Your task to perform on an android device: check out phone information Image 0: 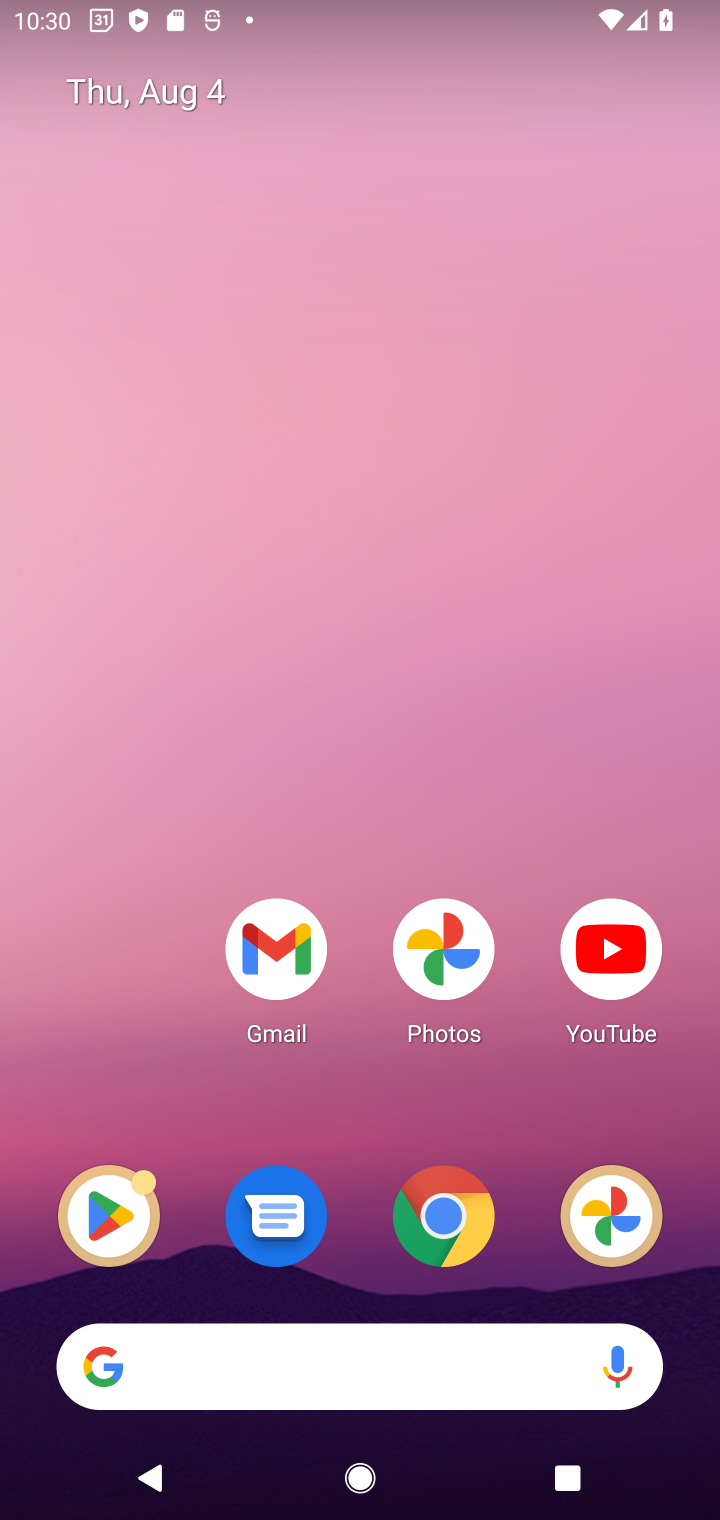
Step 0: drag from (341, 1341) to (429, 227)
Your task to perform on an android device: check out phone information Image 1: 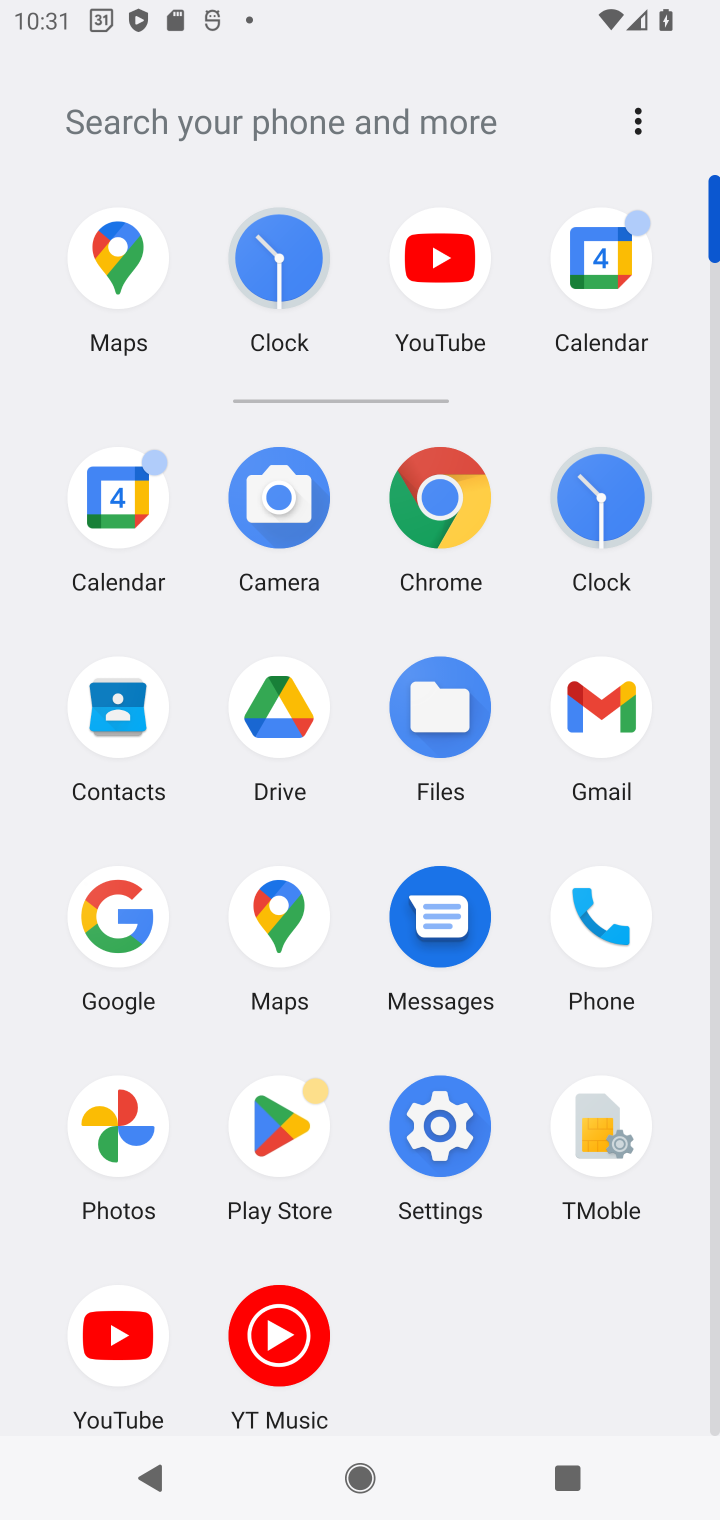
Step 1: click (434, 1128)
Your task to perform on an android device: check out phone information Image 2: 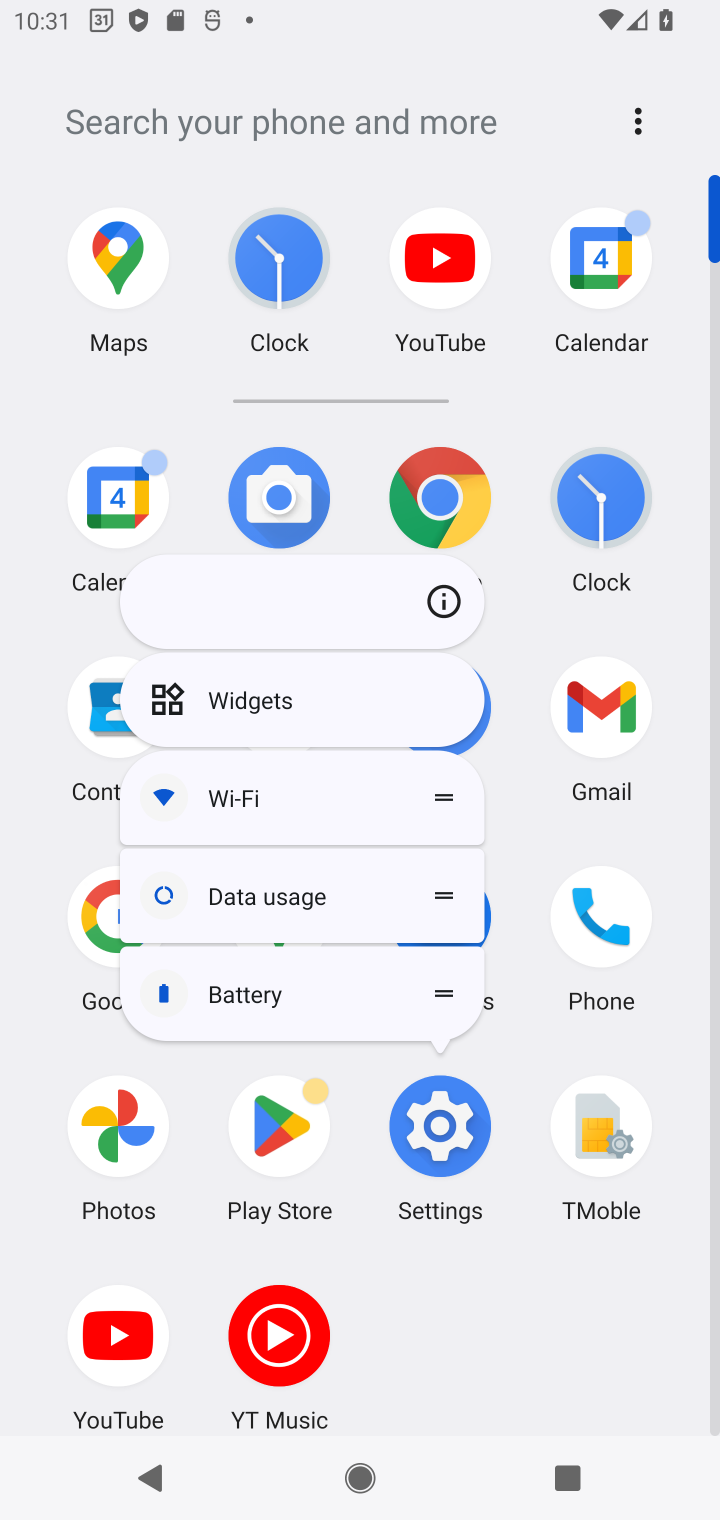
Step 2: click (439, 1126)
Your task to perform on an android device: check out phone information Image 3: 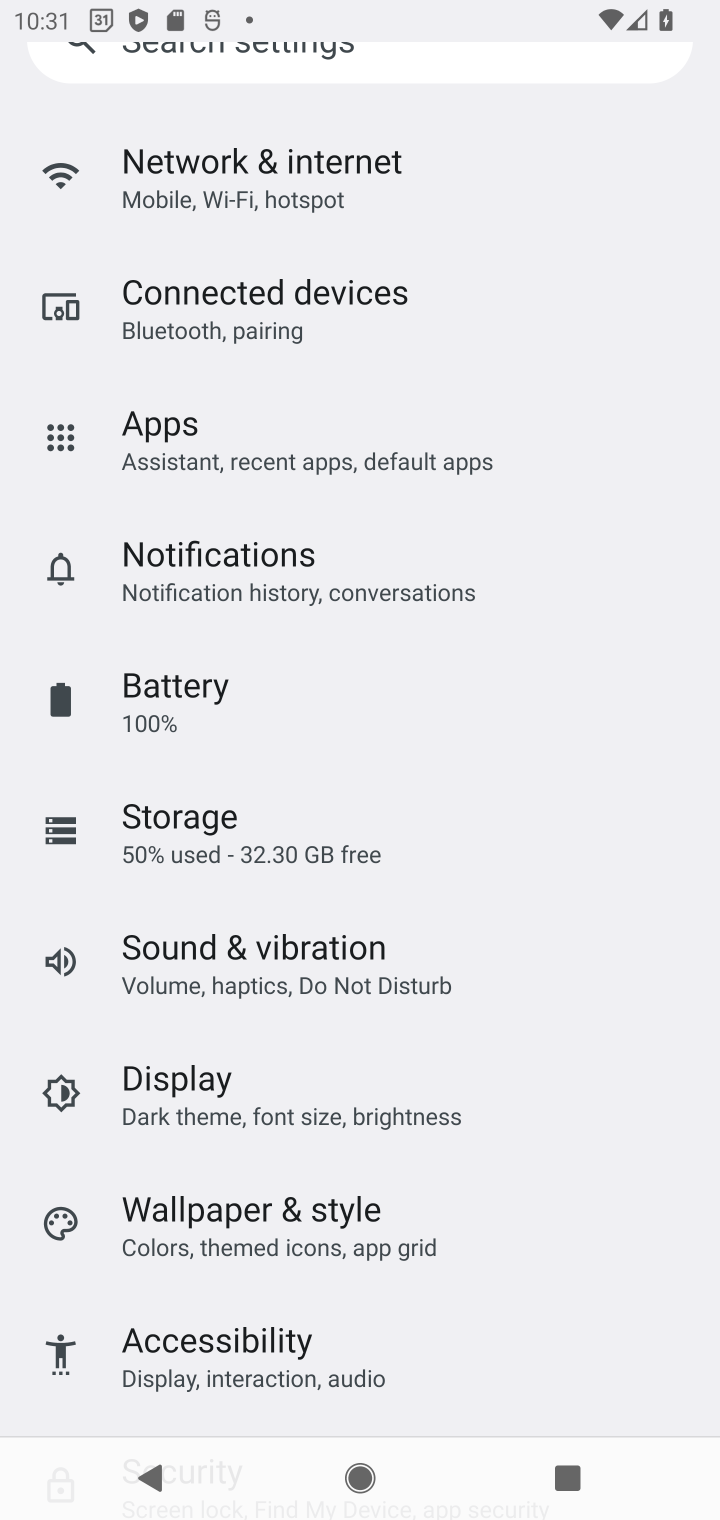
Step 3: drag from (209, 1047) to (322, 831)
Your task to perform on an android device: check out phone information Image 4: 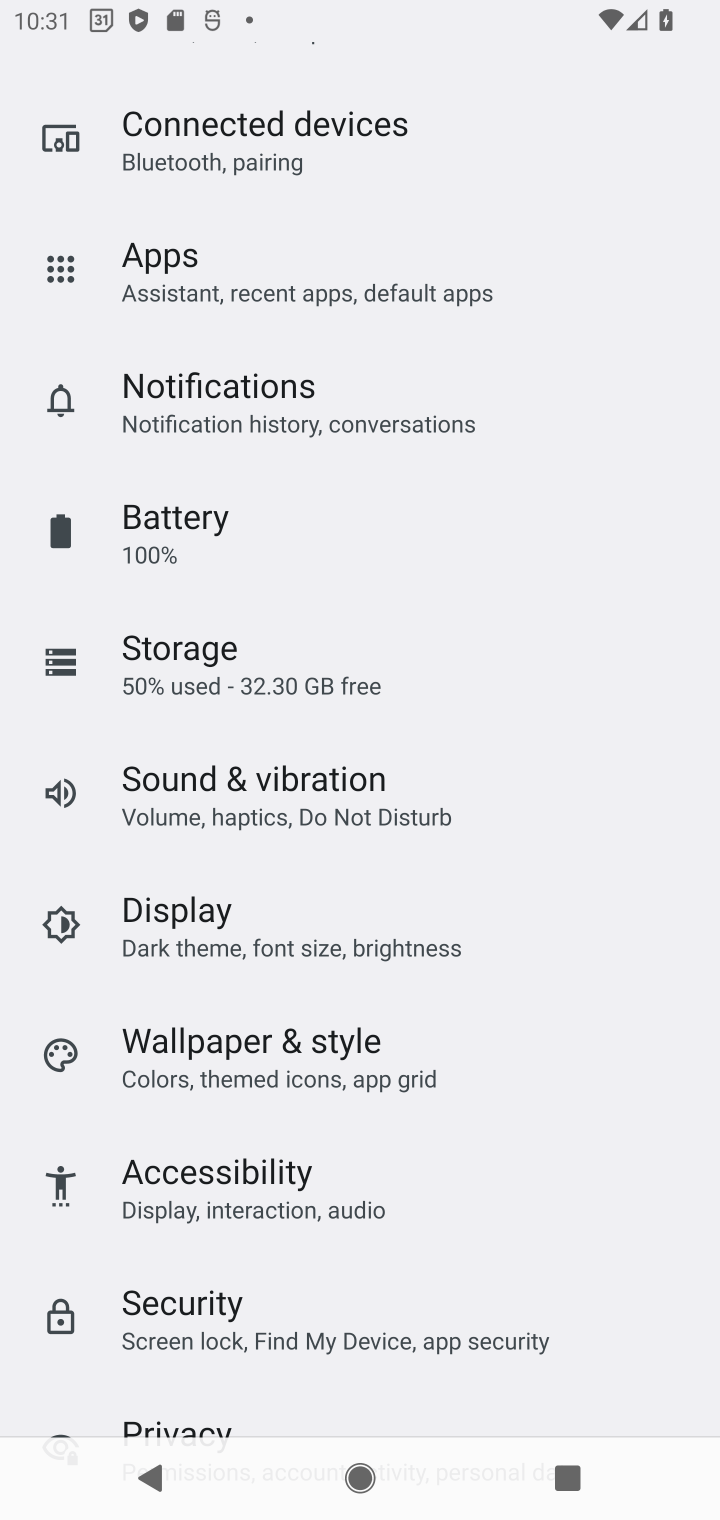
Step 4: drag from (153, 1129) to (259, 789)
Your task to perform on an android device: check out phone information Image 5: 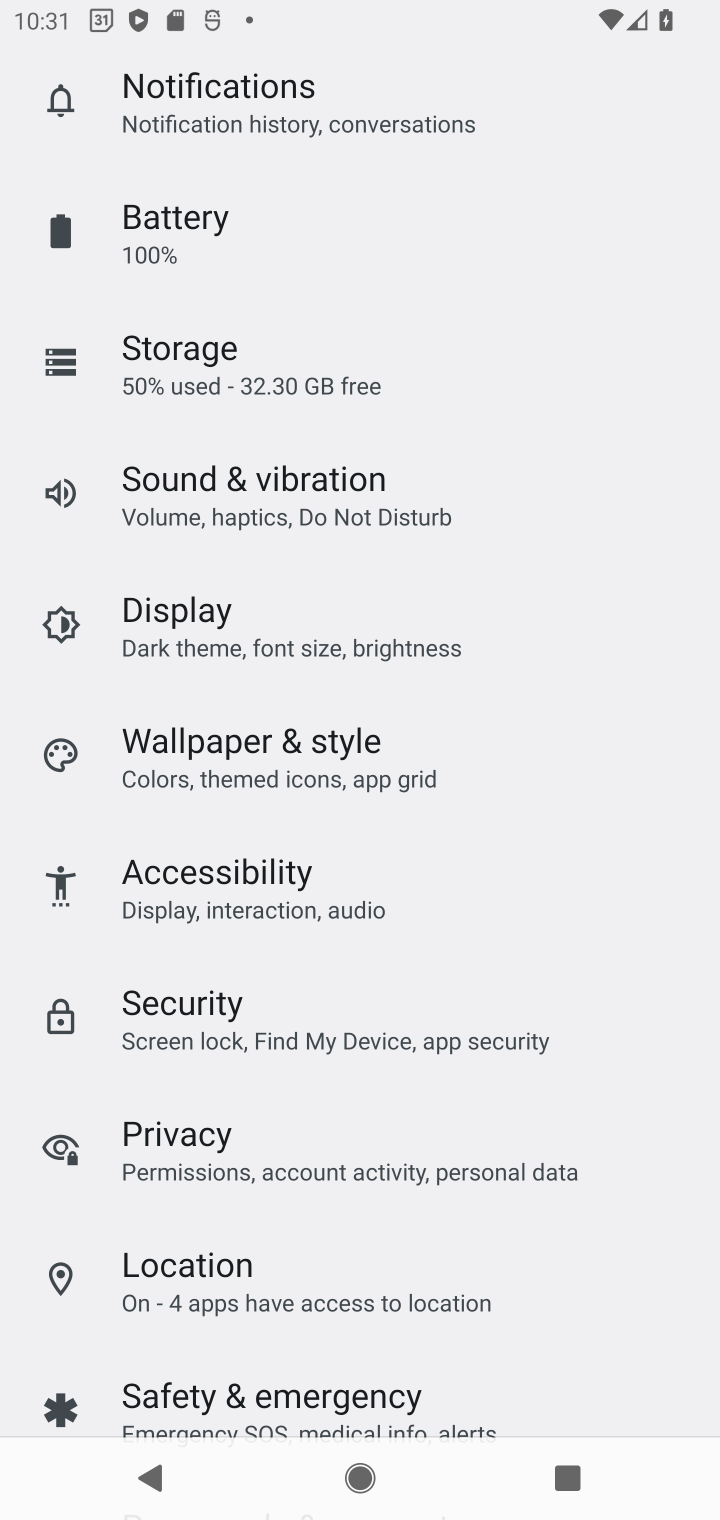
Step 5: drag from (184, 1094) to (348, 898)
Your task to perform on an android device: check out phone information Image 6: 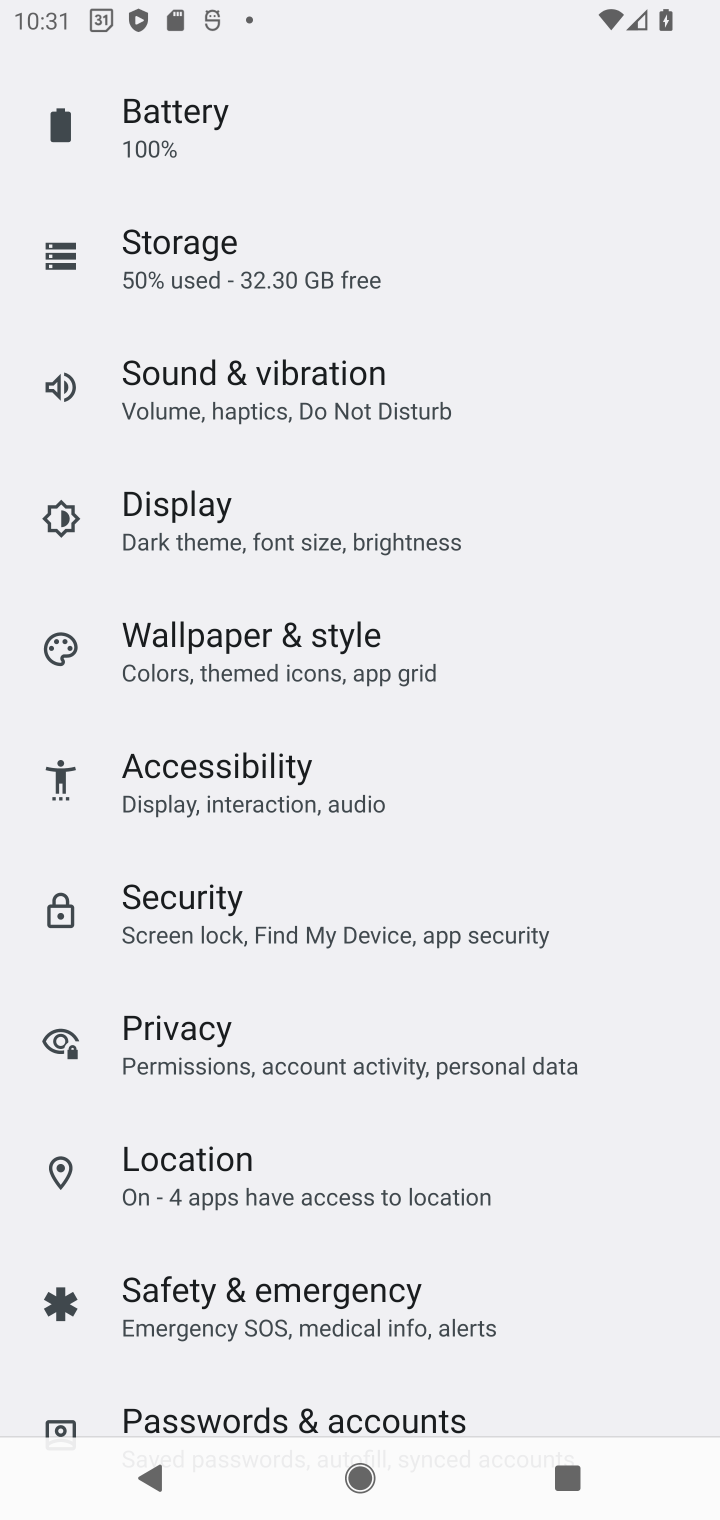
Step 6: drag from (232, 1124) to (346, 939)
Your task to perform on an android device: check out phone information Image 7: 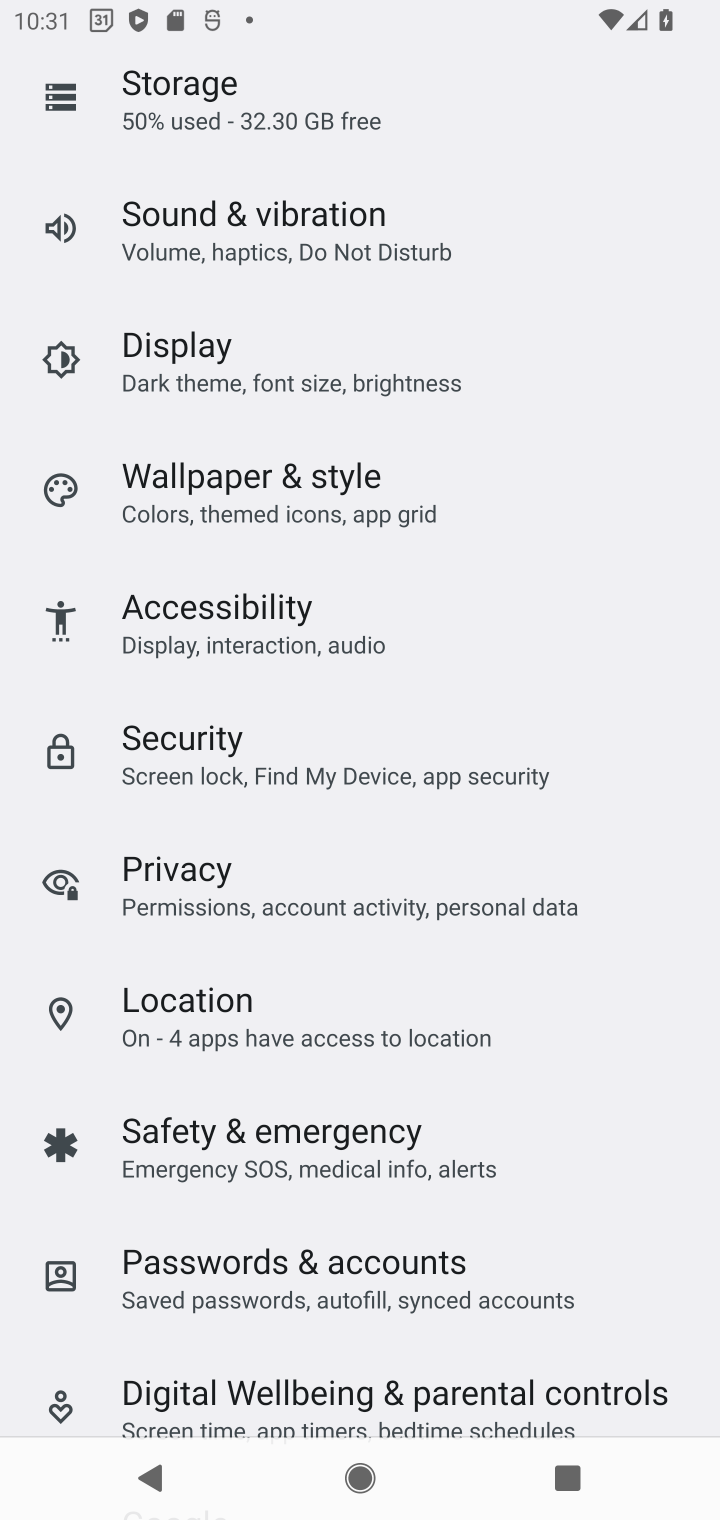
Step 7: drag from (177, 1218) to (339, 977)
Your task to perform on an android device: check out phone information Image 8: 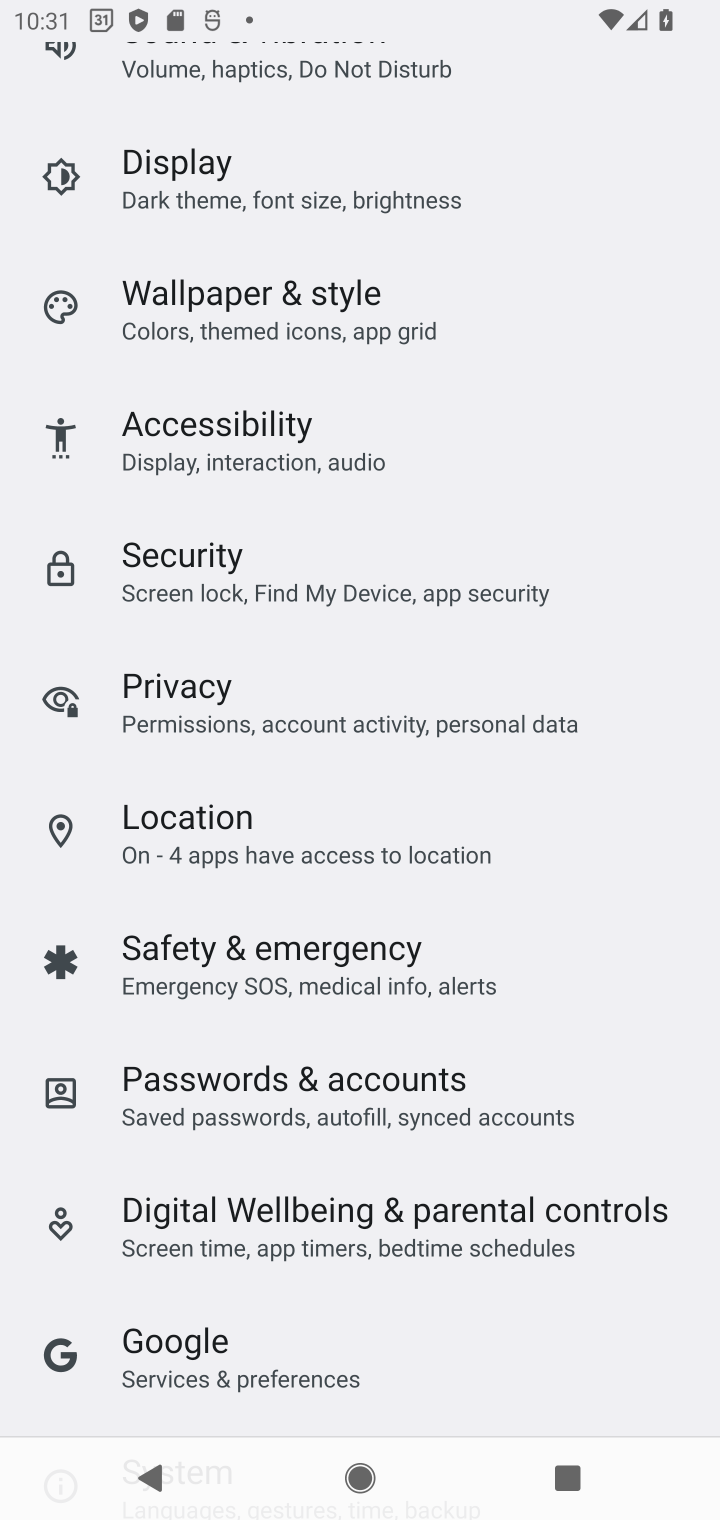
Step 8: drag from (210, 1267) to (367, 984)
Your task to perform on an android device: check out phone information Image 9: 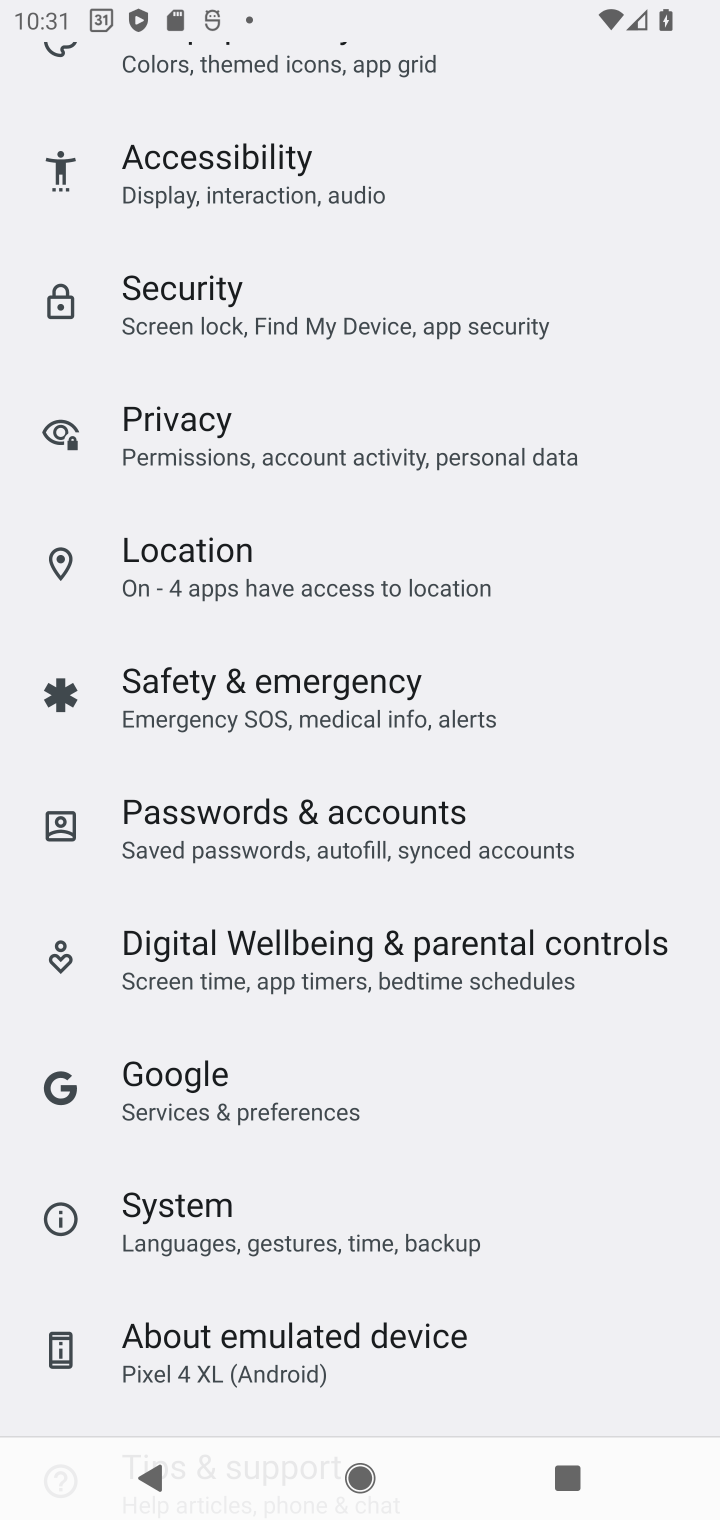
Step 9: click (272, 1339)
Your task to perform on an android device: check out phone information Image 10: 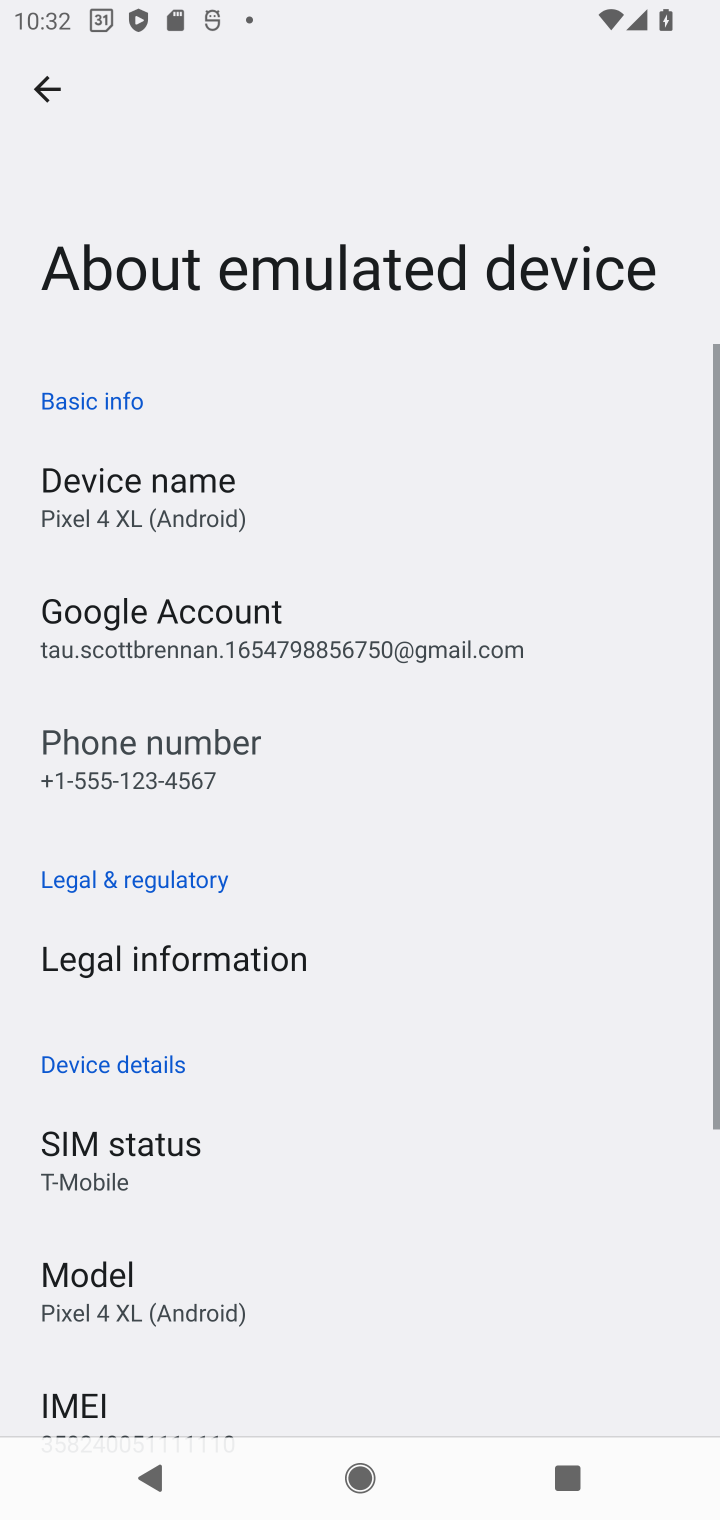
Step 10: task complete